Your task to perform on an android device: open device folders in google photos Image 0: 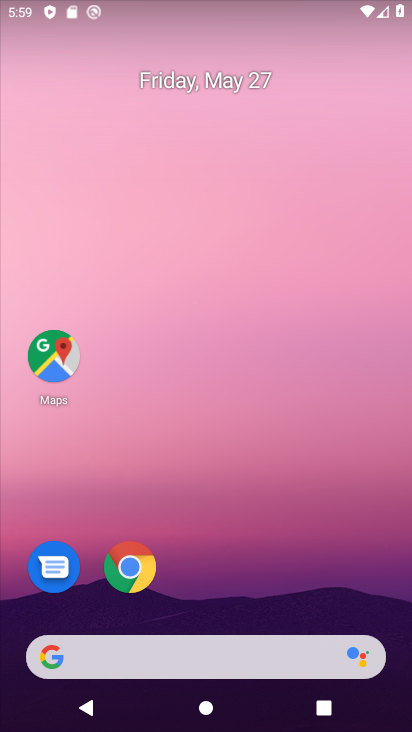
Step 0: drag from (191, 609) to (242, 174)
Your task to perform on an android device: open device folders in google photos Image 1: 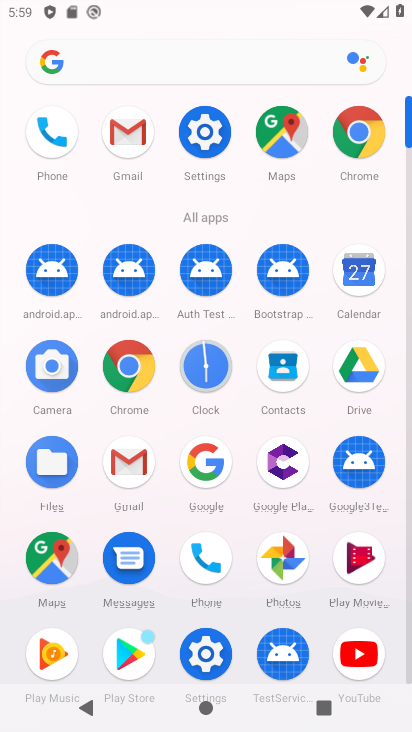
Step 1: click (273, 565)
Your task to perform on an android device: open device folders in google photos Image 2: 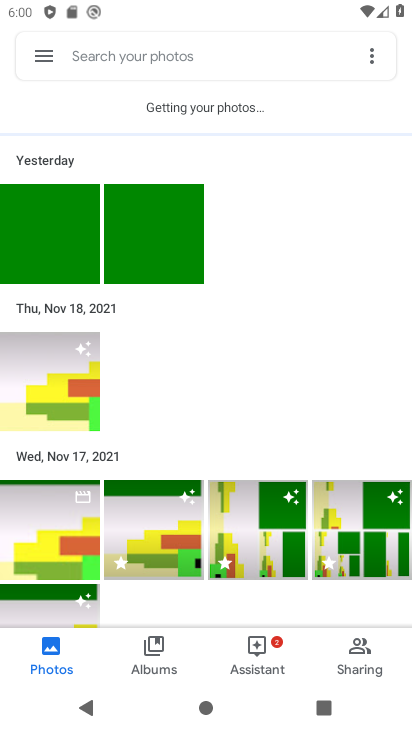
Step 2: click (41, 46)
Your task to perform on an android device: open device folders in google photos Image 3: 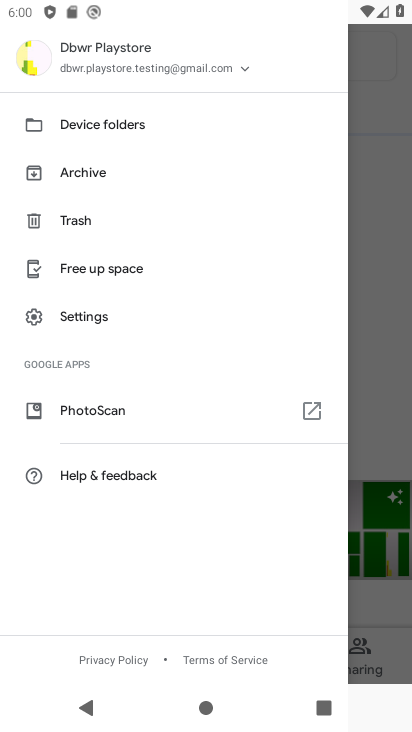
Step 3: click (109, 120)
Your task to perform on an android device: open device folders in google photos Image 4: 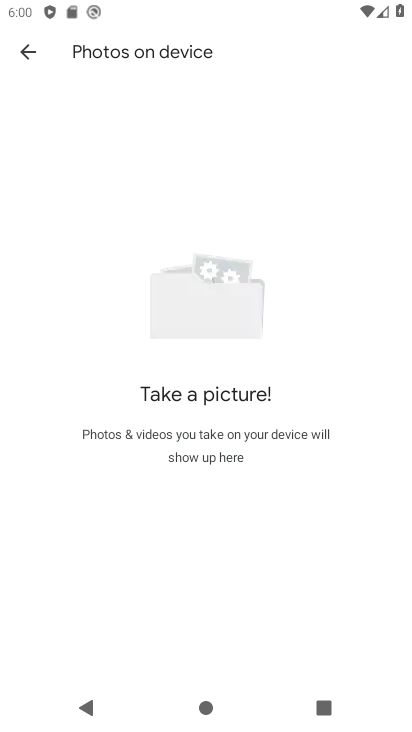
Step 4: task complete